Your task to perform on an android device: Go to ESPN.com Image 0: 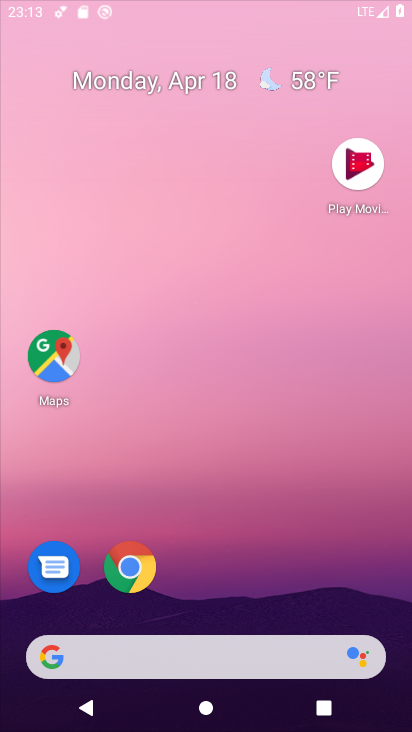
Step 0: click (283, 15)
Your task to perform on an android device: Go to ESPN.com Image 1: 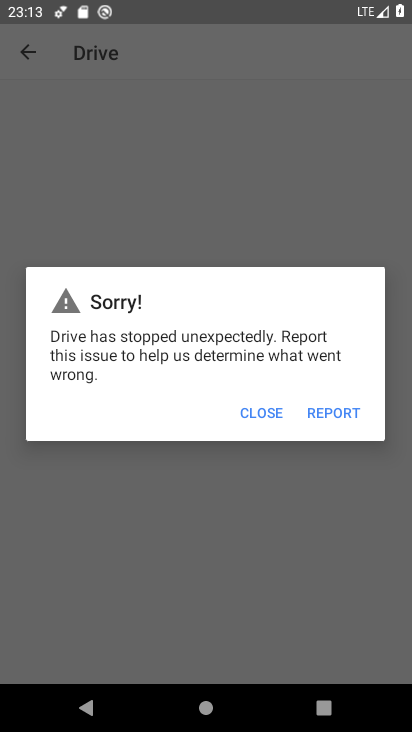
Step 1: press home button
Your task to perform on an android device: Go to ESPN.com Image 2: 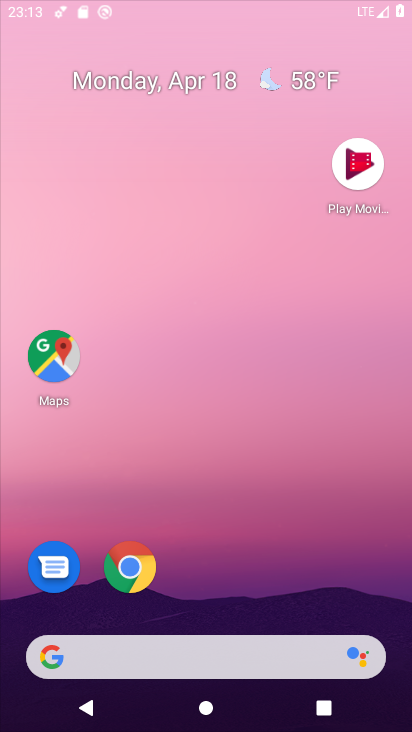
Step 2: drag from (179, 640) to (221, 7)
Your task to perform on an android device: Go to ESPN.com Image 3: 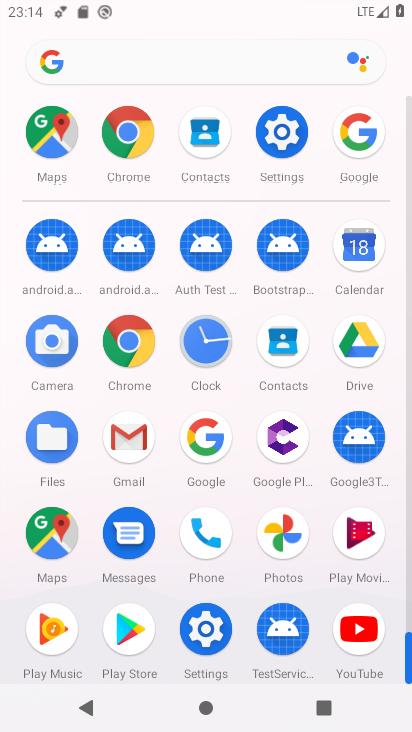
Step 3: click (126, 335)
Your task to perform on an android device: Go to ESPN.com Image 4: 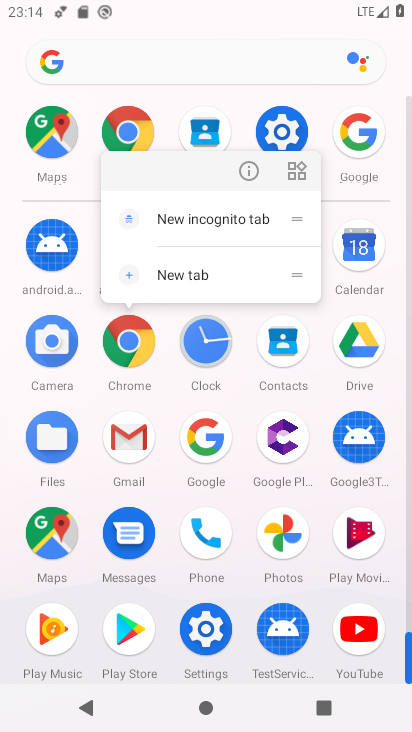
Step 4: click (248, 157)
Your task to perform on an android device: Go to ESPN.com Image 5: 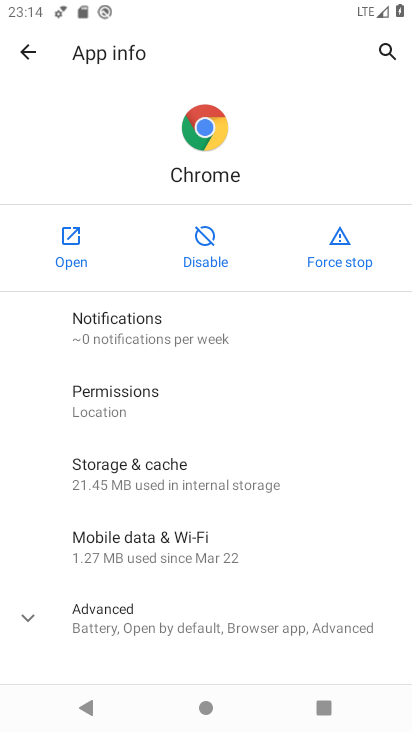
Step 5: click (68, 235)
Your task to perform on an android device: Go to ESPN.com Image 6: 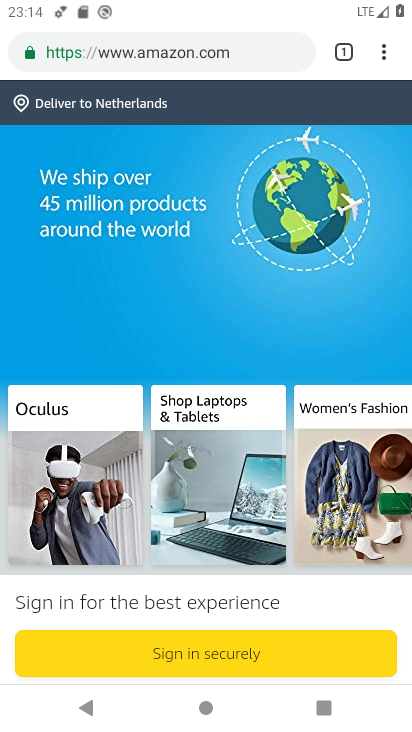
Step 6: click (171, 47)
Your task to perform on an android device: Go to ESPN.com Image 7: 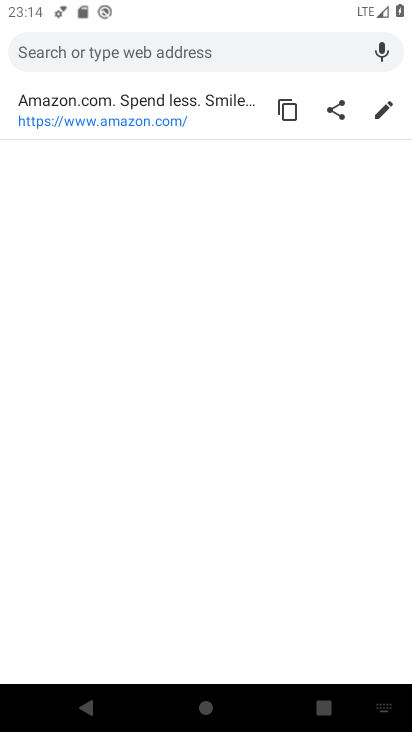
Step 7: type "espn.com"
Your task to perform on an android device: Go to ESPN.com Image 8: 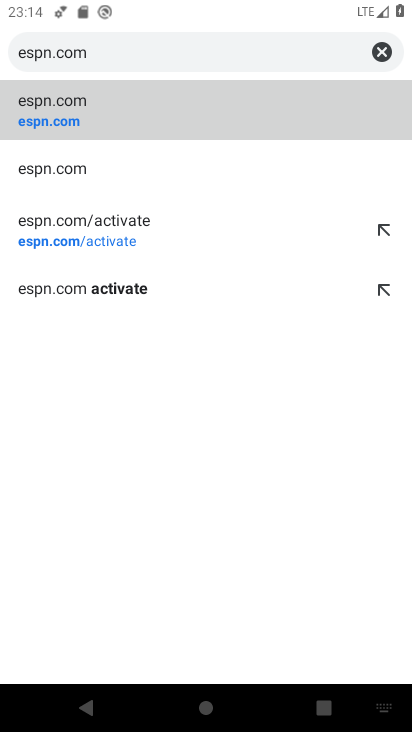
Step 8: click (48, 128)
Your task to perform on an android device: Go to ESPN.com Image 9: 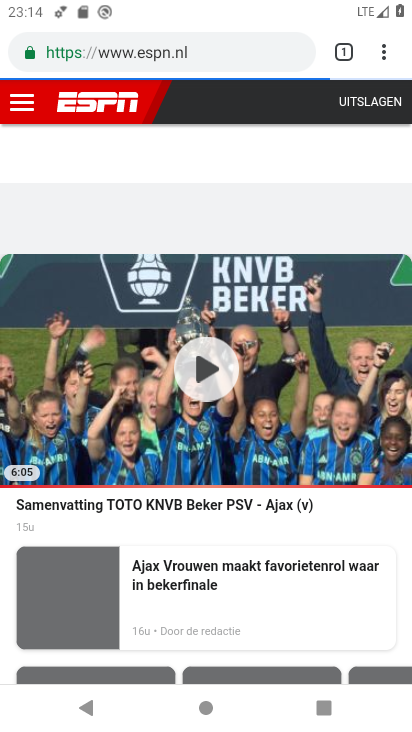
Step 9: task complete